Your task to perform on an android device: Open Amazon Image 0: 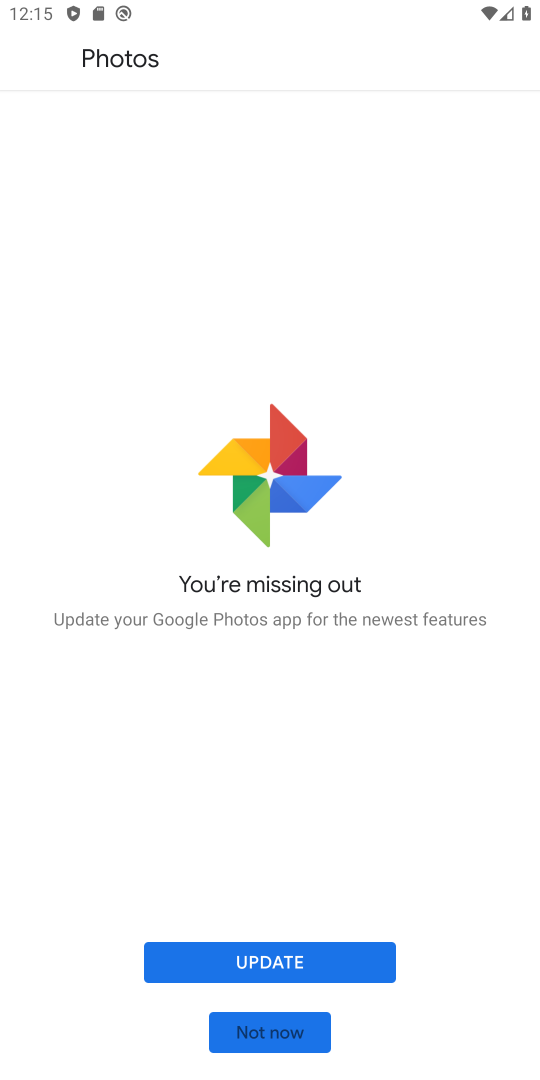
Step 0: press home button
Your task to perform on an android device: Open Amazon Image 1: 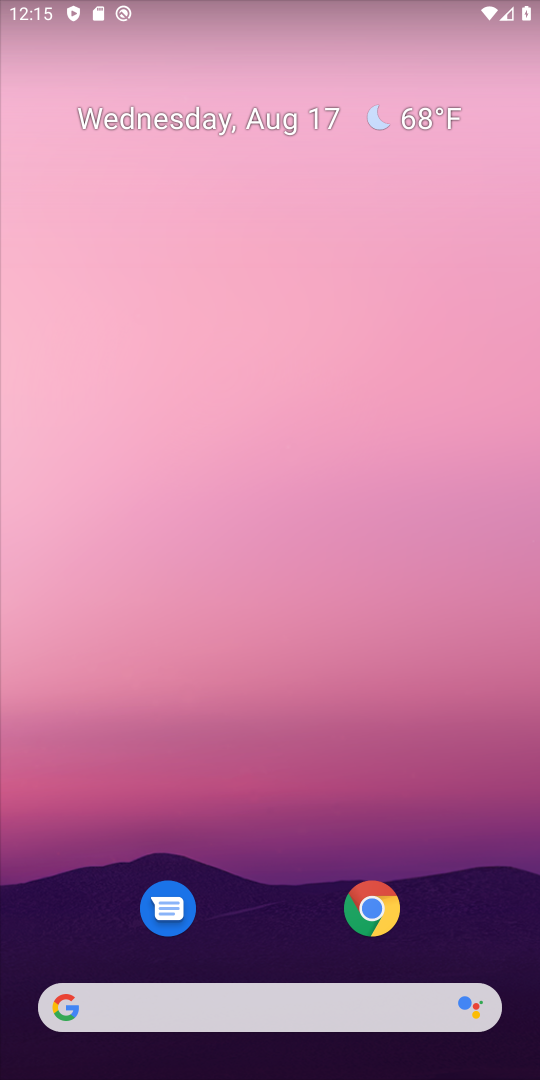
Step 1: click (378, 899)
Your task to perform on an android device: Open Amazon Image 2: 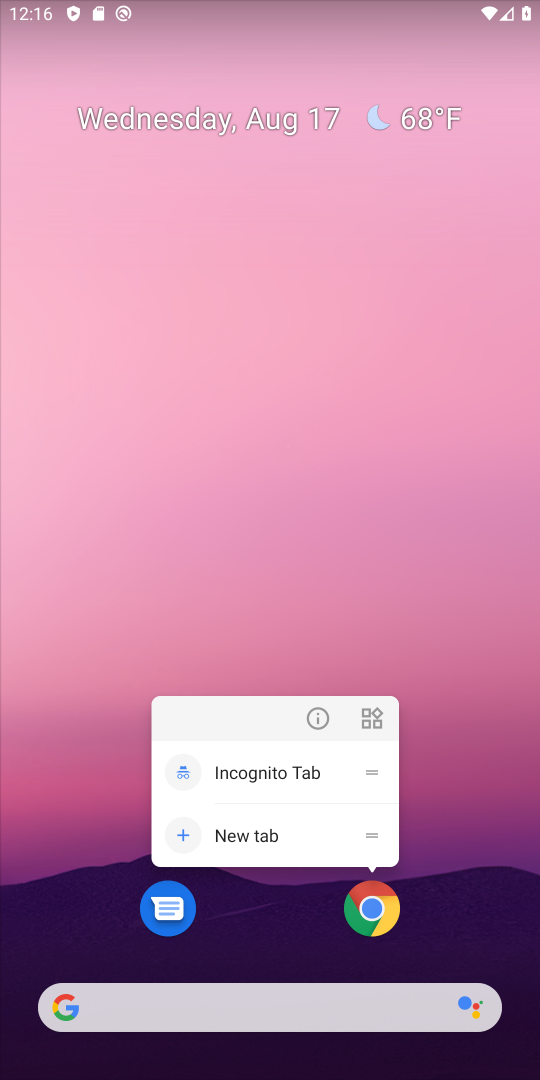
Step 2: click (374, 902)
Your task to perform on an android device: Open Amazon Image 3: 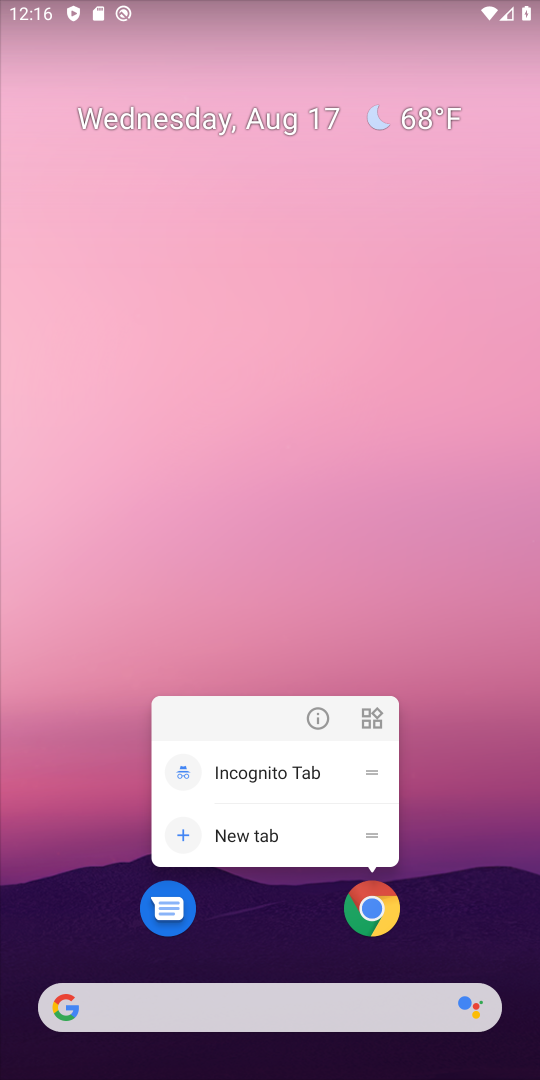
Step 3: click (369, 902)
Your task to perform on an android device: Open Amazon Image 4: 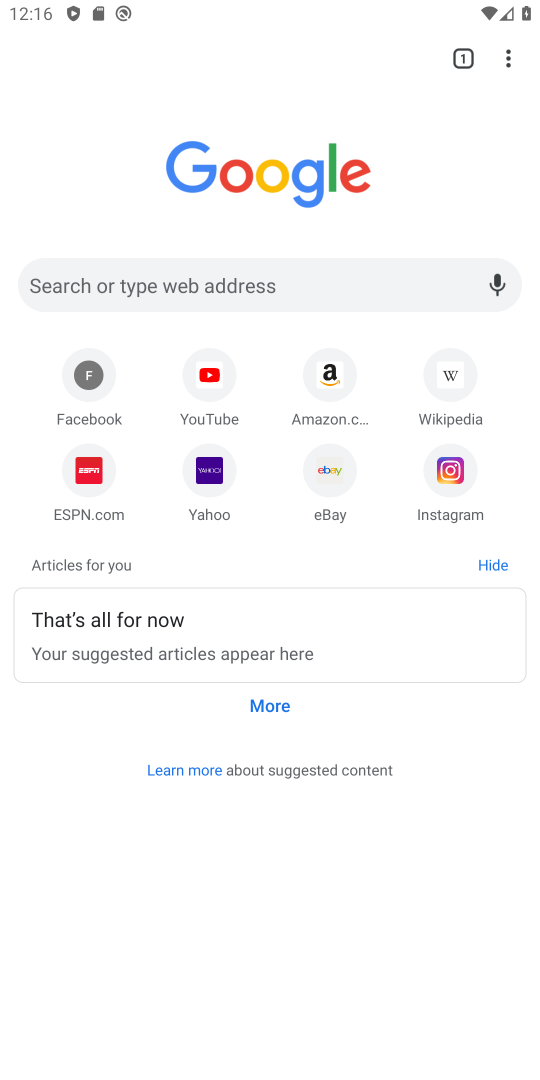
Step 4: click (310, 403)
Your task to perform on an android device: Open Amazon Image 5: 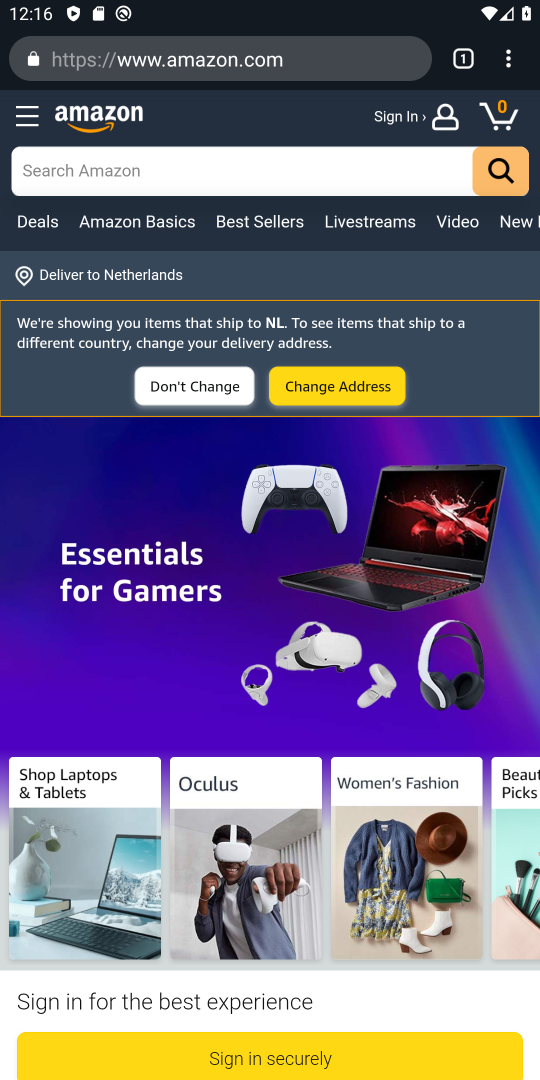
Step 5: task complete